Your task to perform on an android device: Play the last video I watched on Youtube Image 0: 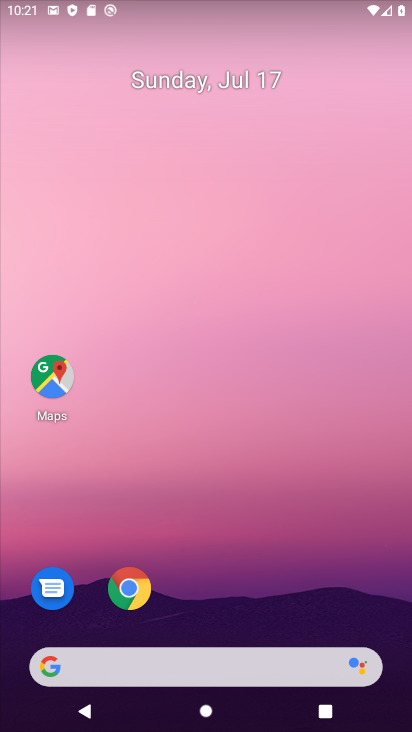
Step 0: drag from (250, 601) to (228, 175)
Your task to perform on an android device: Play the last video I watched on Youtube Image 1: 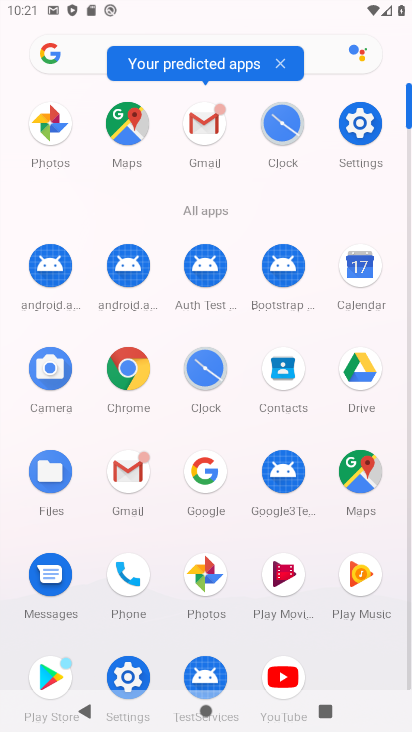
Step 1: click (274, 662)
Your task to perform on an android device: Play the last video I watched on Youtube Image 2: 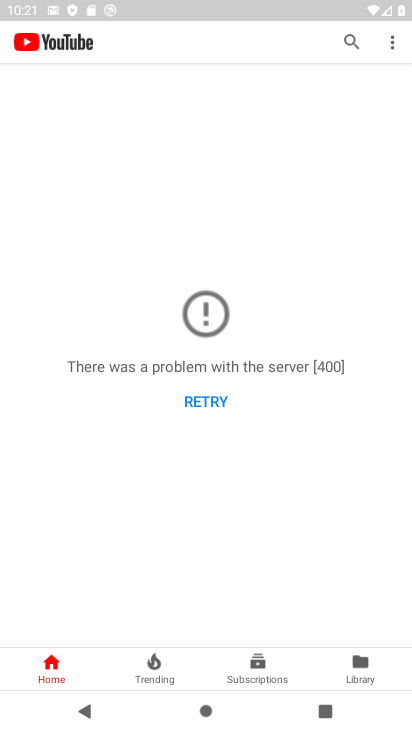
Step 2: click (352, 677)
Your task to perform on an android device: Play the last video I watched on Youtube Image 3: 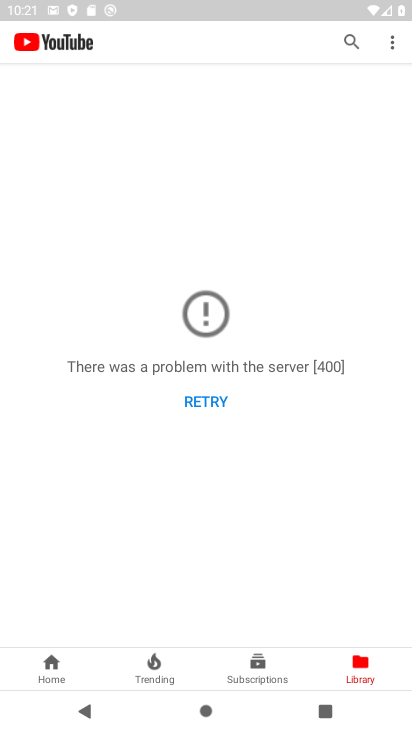
Step 3: task complete